Your task to perform on an android device: set default search engine in the chrome app Image 0: 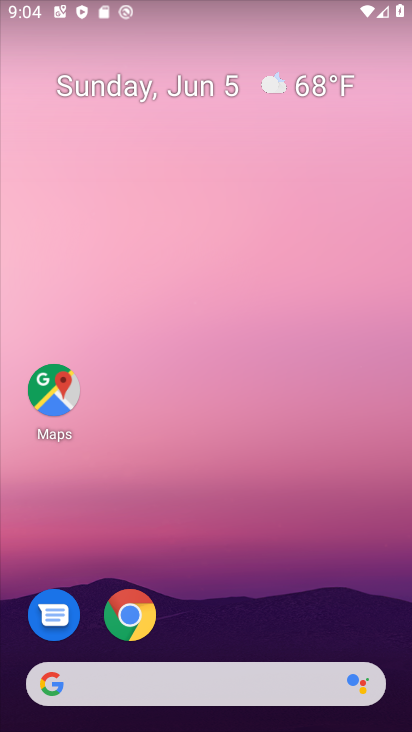
Step 0: click (137, 635)
Your task to perform on an android device: set default search engine in the chrome app Image 1: 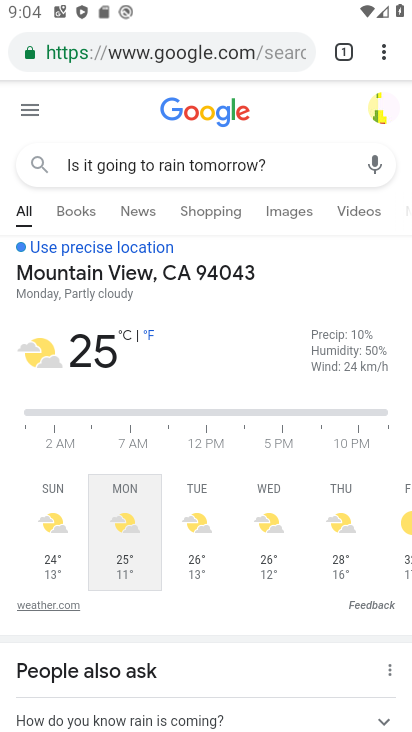
Step 1: drag from (385, 48) to (220, 573)
Your task to perform on an android device: set default search engine in the chrome app Image 2: 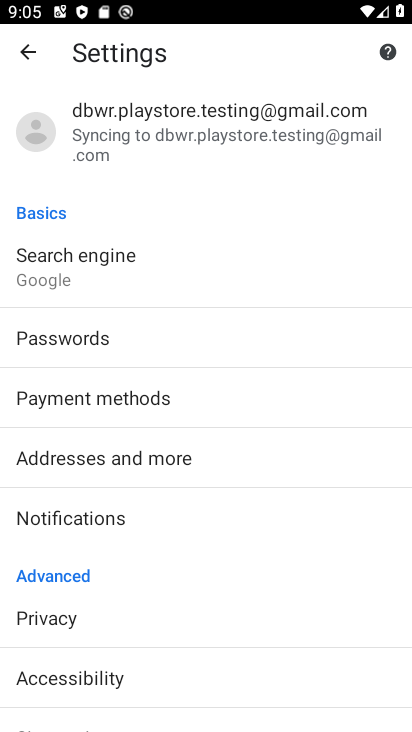
Step 2: click (76, 253)
Your task to perform on an android device: set default search engine in the chrome app Image 3: 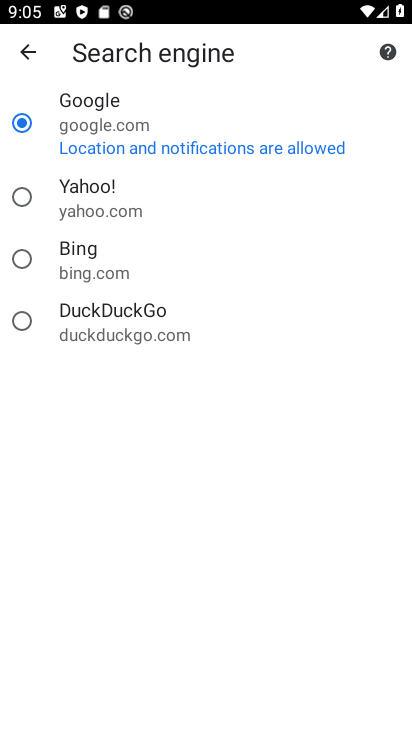
Step 3: click (68, 309)
Your task to perform on an android device: set default search engine in the chrome app Image 4: 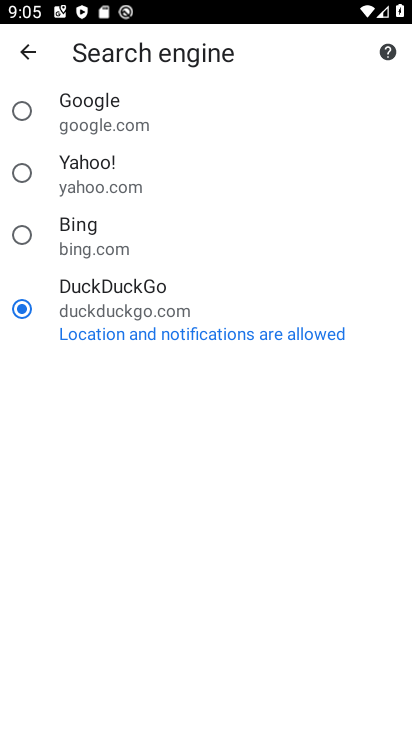
Step 4: task complete